Your task to perform on an android device: Turn on the flashlight Image 0: 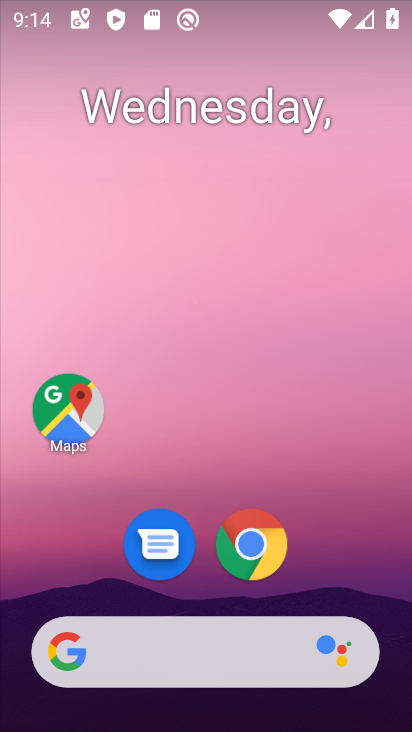
Step 0: drag from (200, 579) to (406, 167)
Your task to perform on an android device: Turn on the flashlight Image 1: 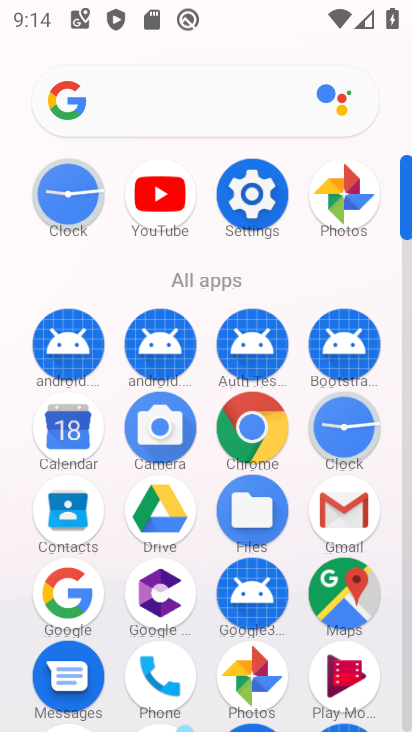
Step 1: click (246, 182)
Your task to perform on an android device: Turn on the flashlight Image 2: 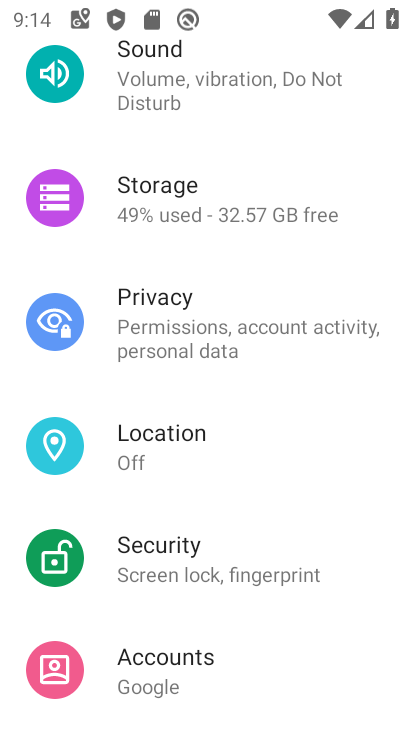
Step 2: task complete